Your task to perform on an android device: open wifi settings Image 0: 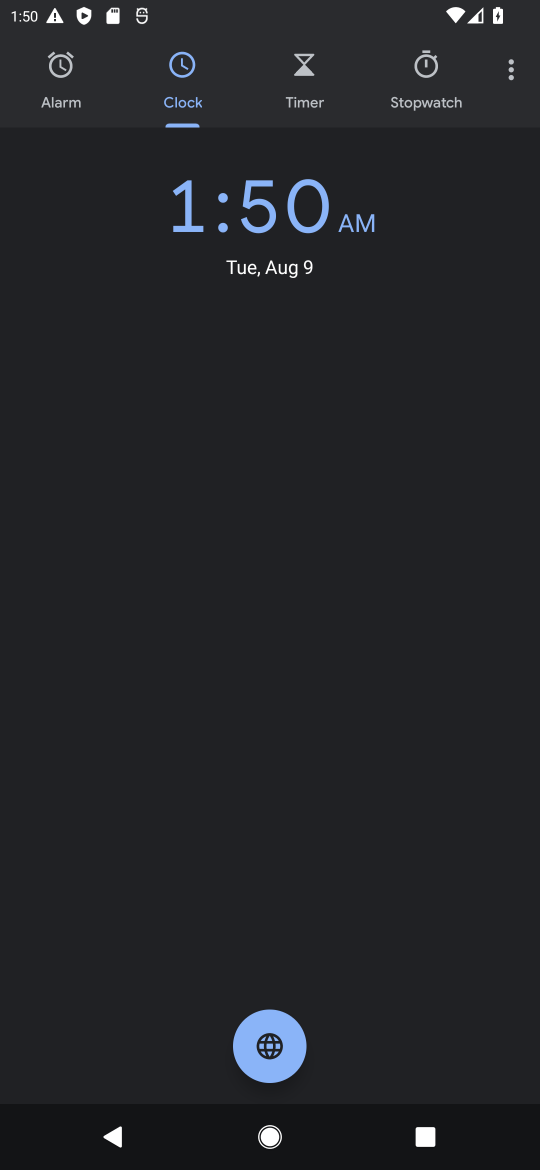
Step 0: press home button
Your task to perform on an android device: open wifi settings Image 1: 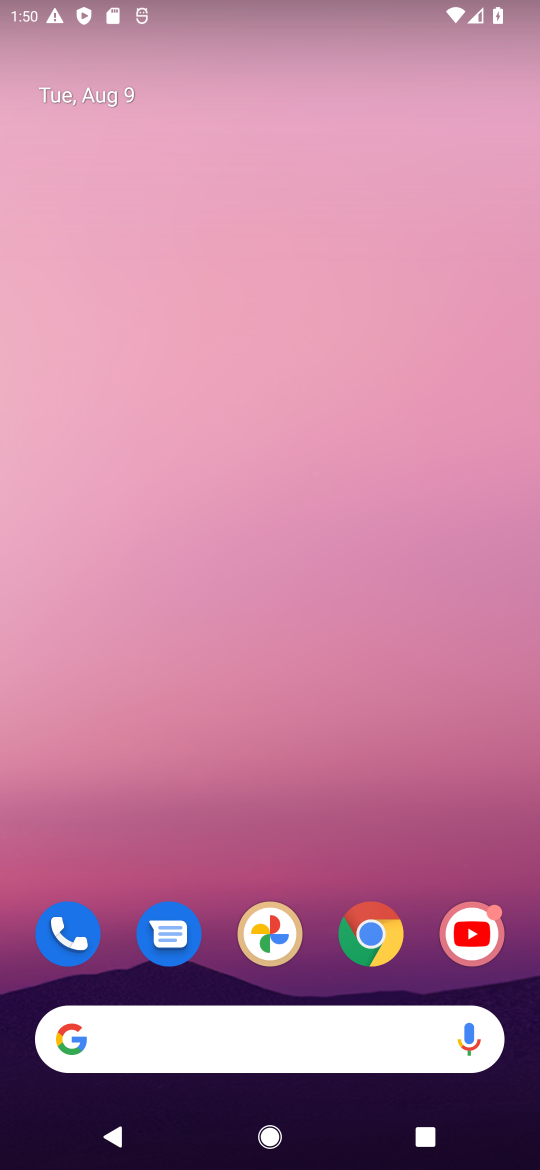
Step 1: drag from (303, 991) to (517, 83)
Your task to perform on an android device: open wifi settings Image 2: 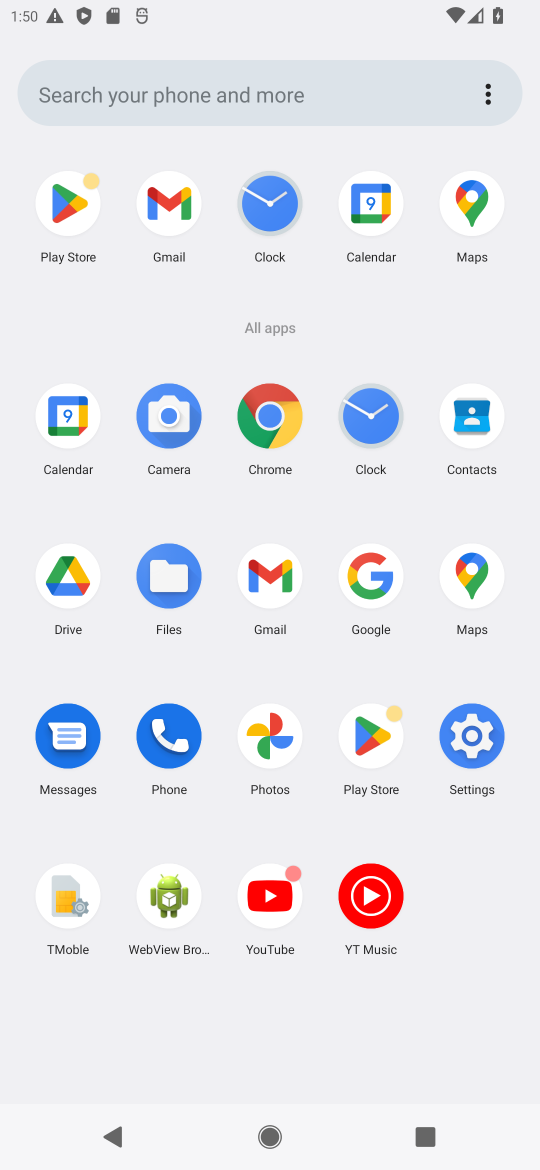
Step 2: click (465, 712)
Your task to perform on an android device: open wifi settings Image 3: 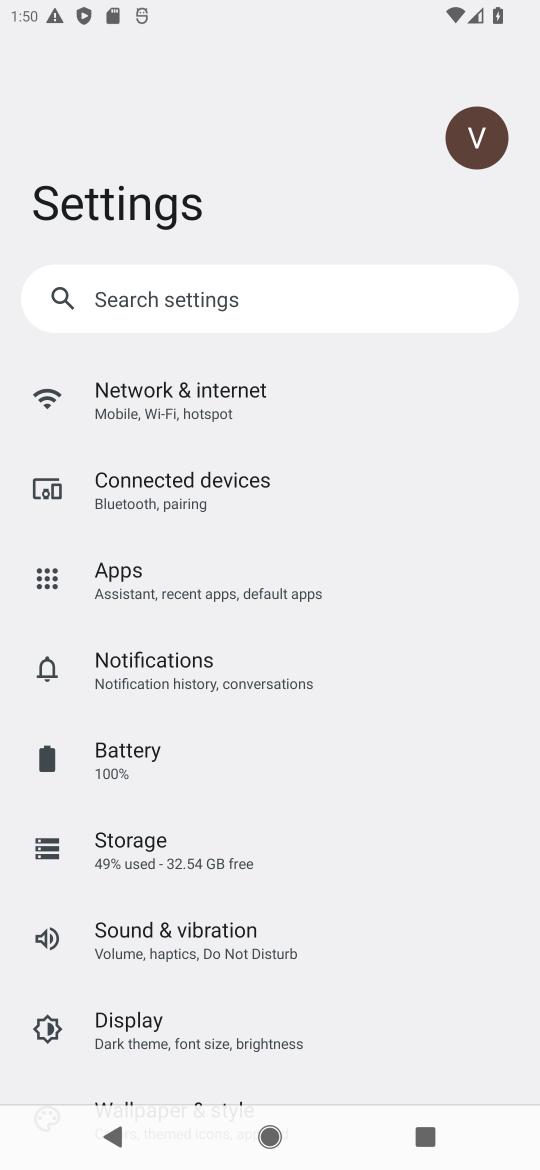
Step 3: click (272, 385)
Your task to perform on an android device: open wifi settings Image 4: 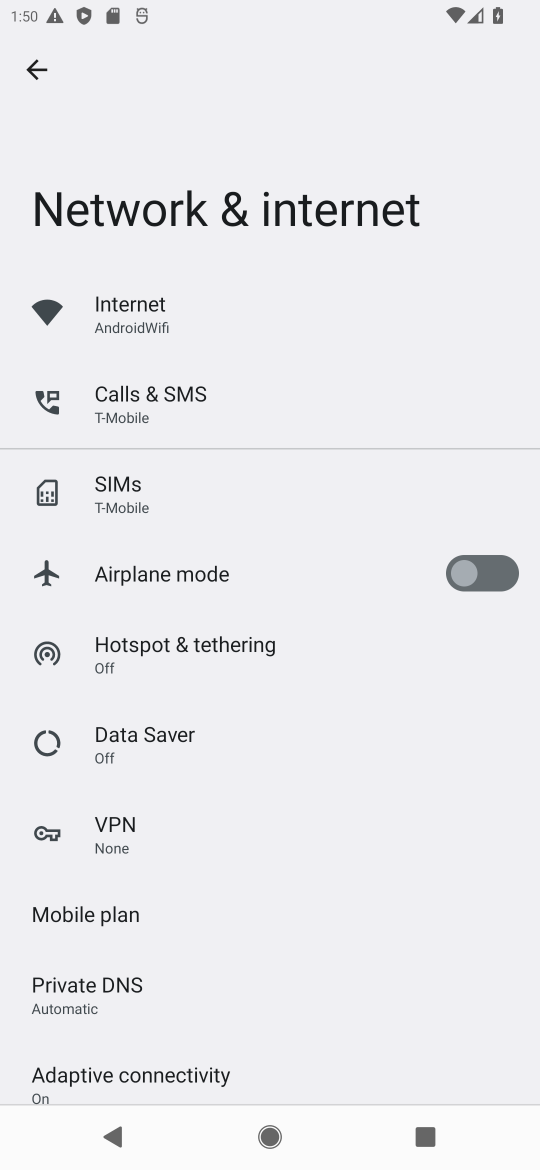
Step 4: task complete